Your task to perform on an android device: Show me recent news Image 0: 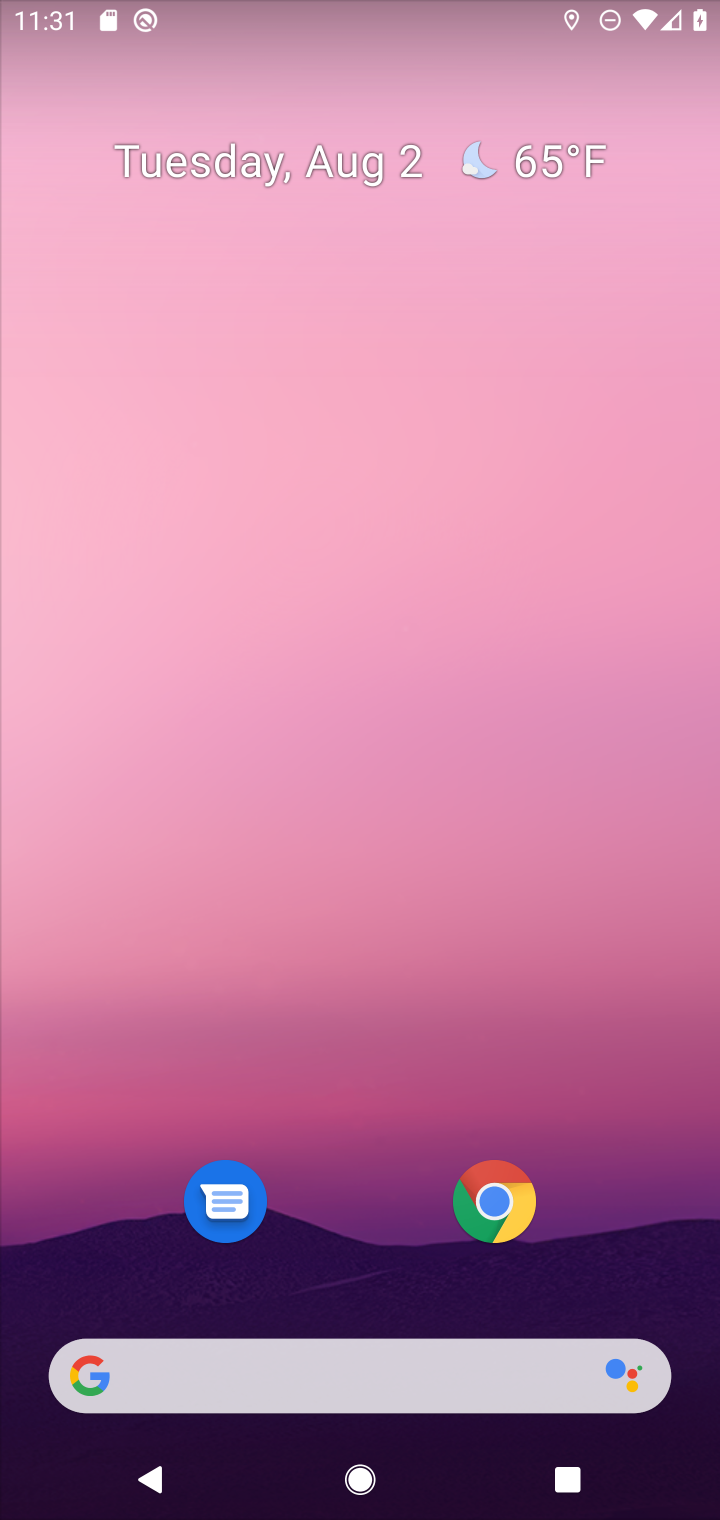
Step 0: drag from (372, 1295) to (359, 255)
Your task to perform on an android device: Show me recent news Image 1: 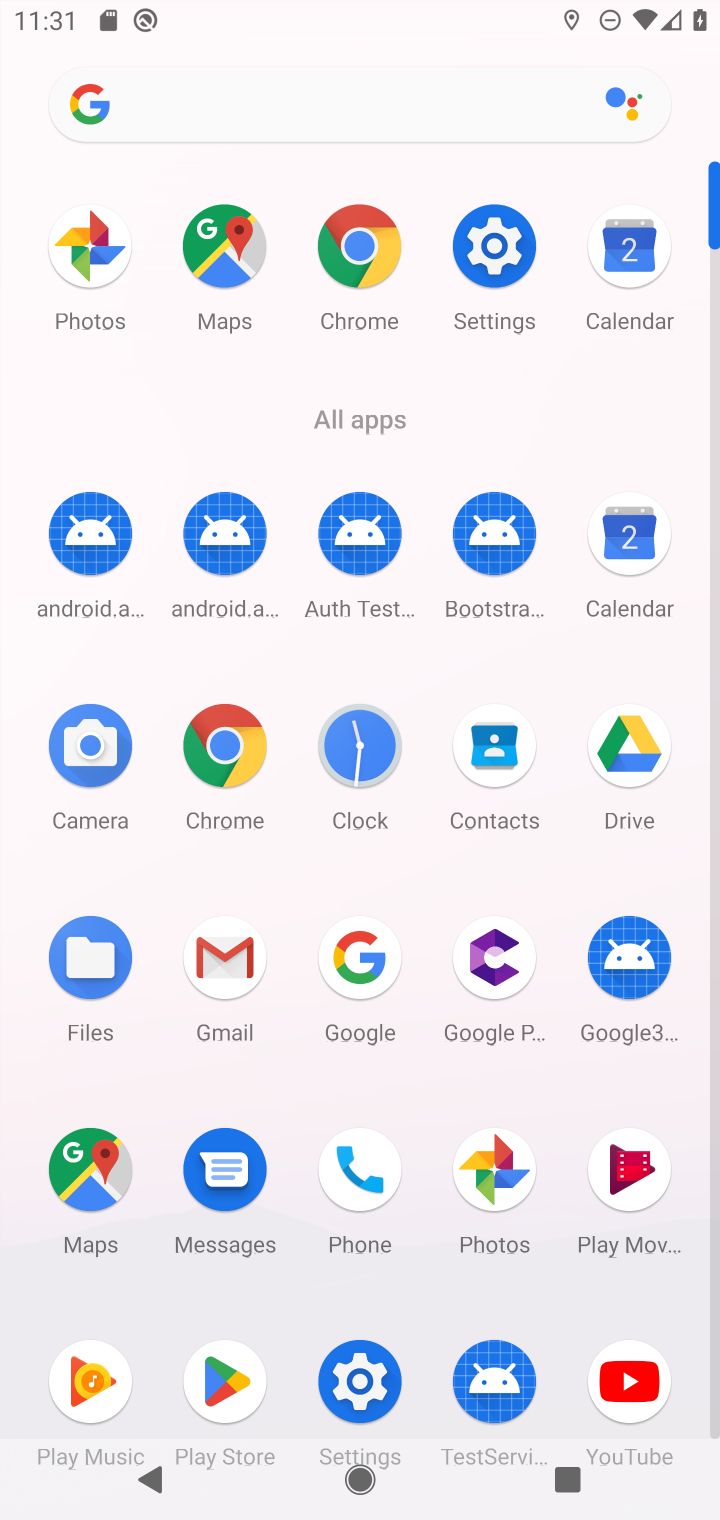
Step 1: click (368, 971)
Your task to perform on an android device: Show me recent news Image 2: 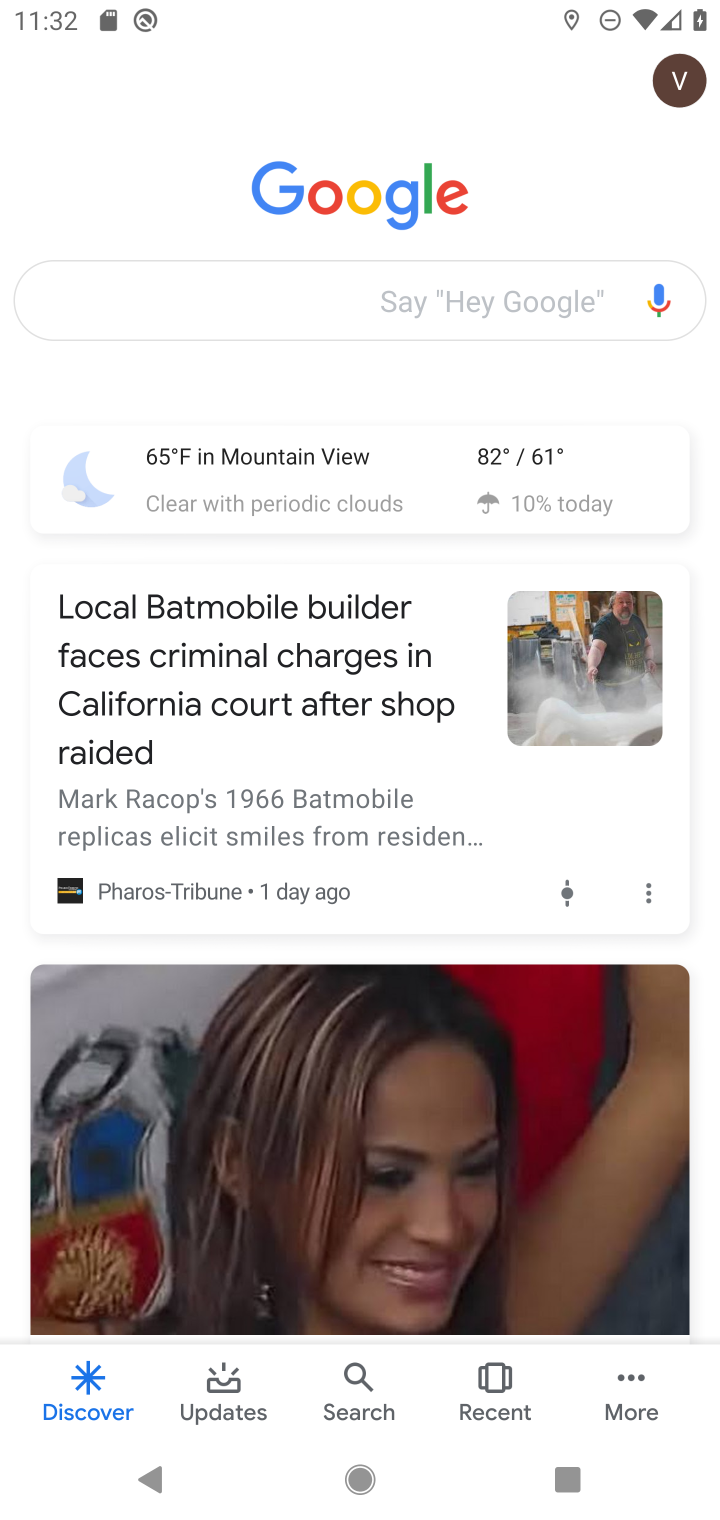
Step 2: click (239, 294)
Your task to perform on an android device: Show me recent news Image 3: 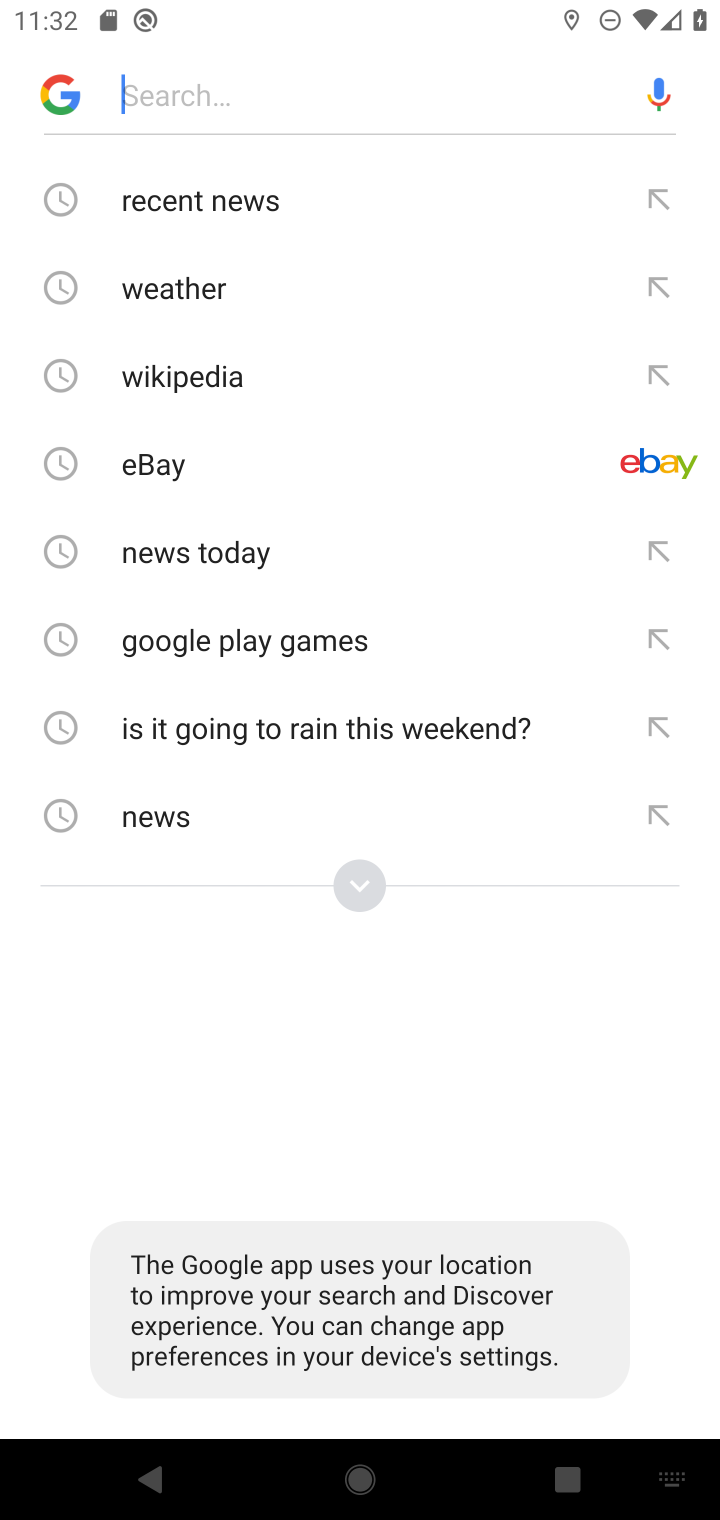
Step 3: click (232, 217)
Your task to perform on an android device: Show me recent news Image 4: 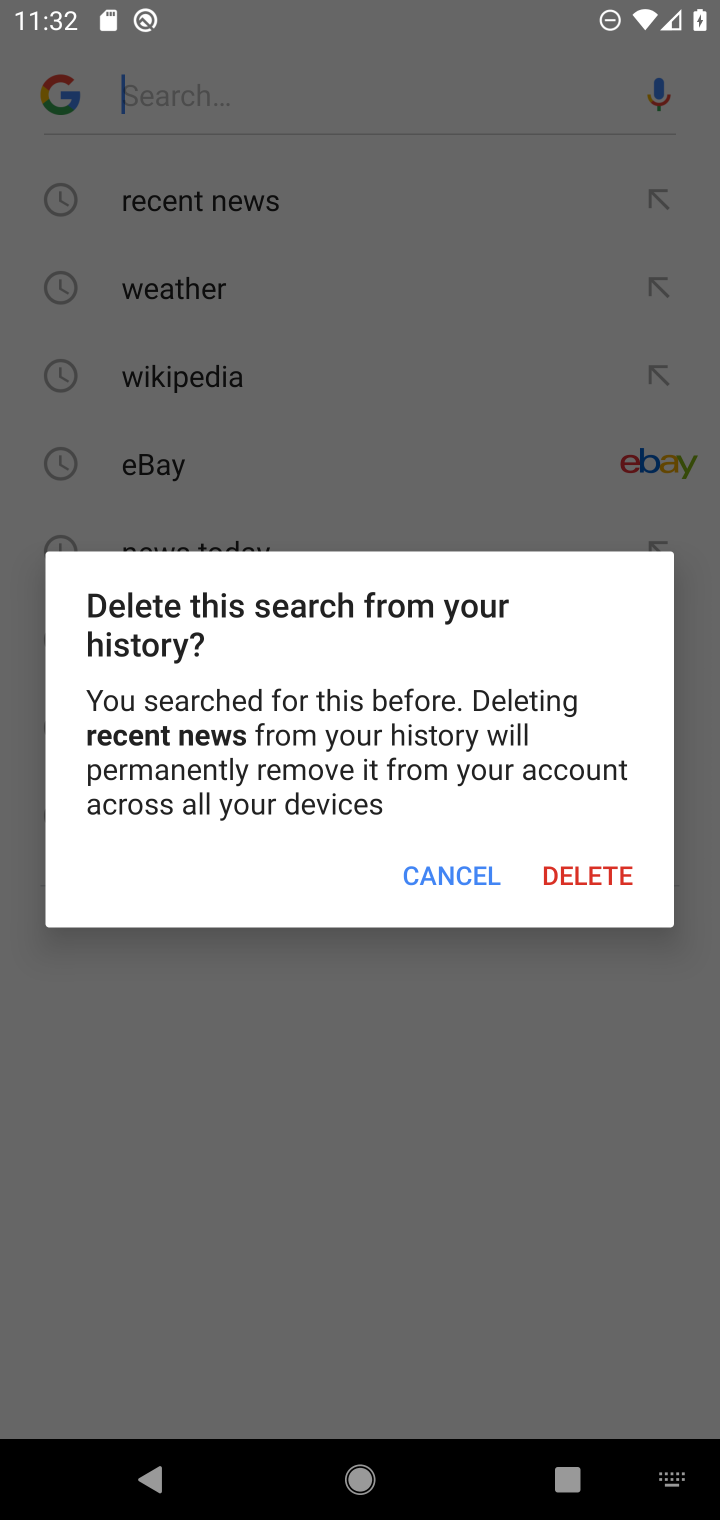
Step 4: click (447, 851)
Your task to perform on an android device: Show me recent news Image 5: 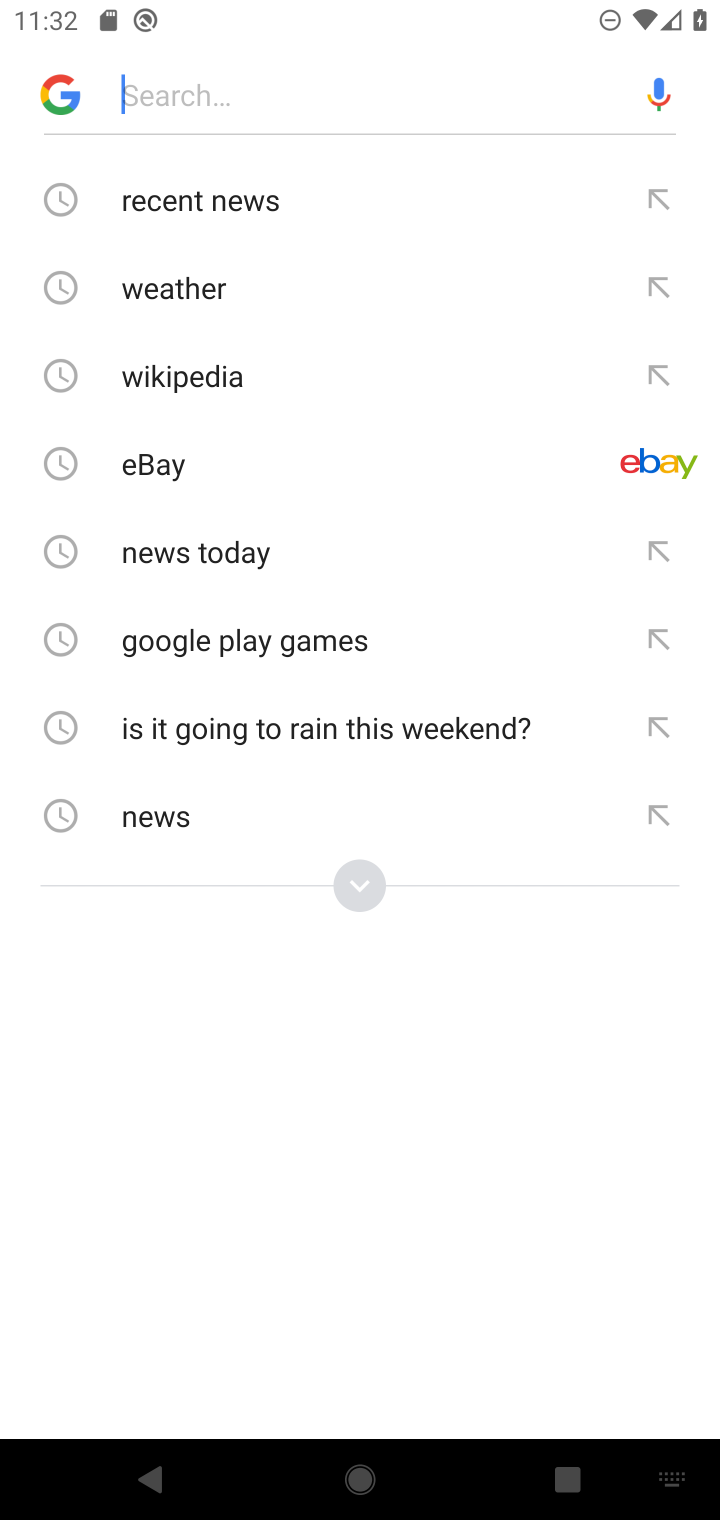
Step 5: click (215, 205)
Your task to perform on an android device: Show me recent news Image 6: 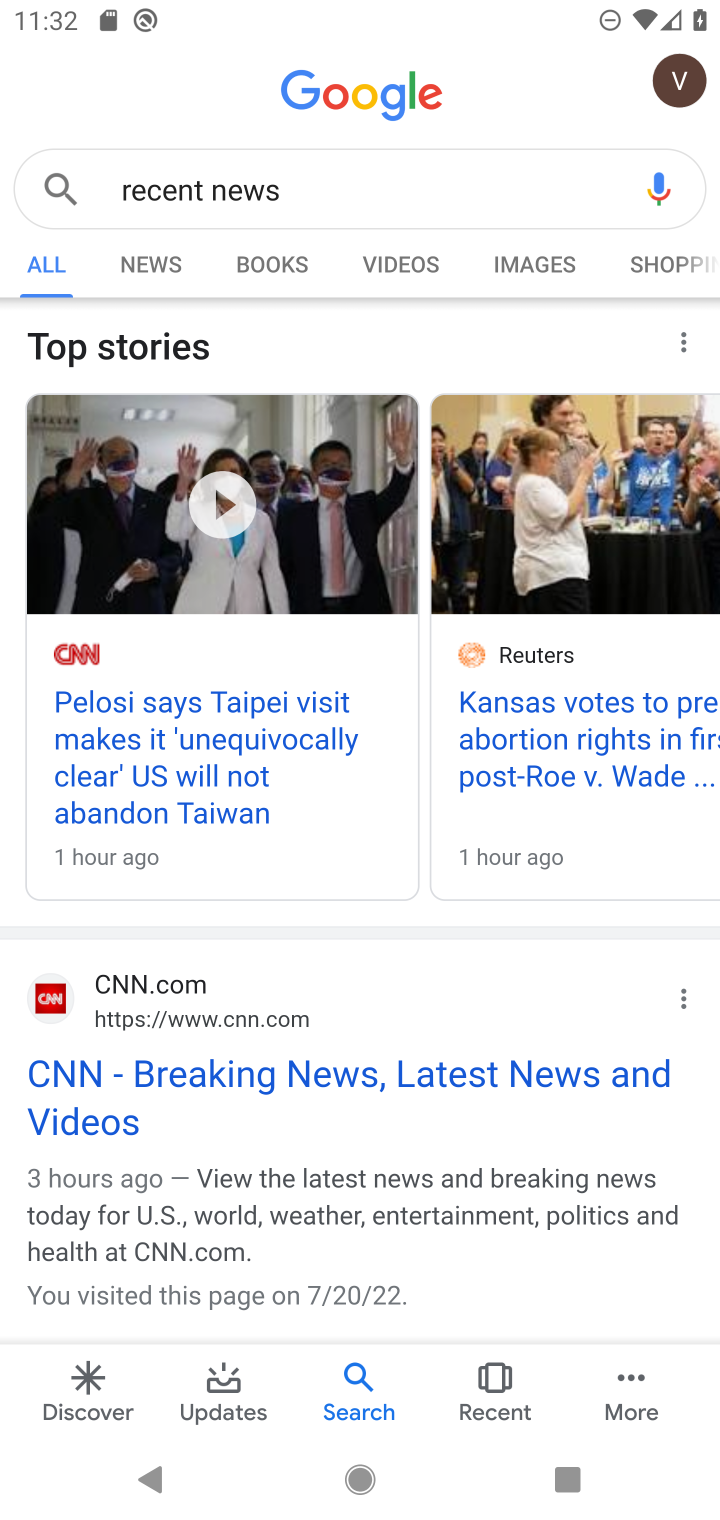
Step 6: task complete